Your task to perform on an android device: toggle notifications settings in the gmail app Image 0: 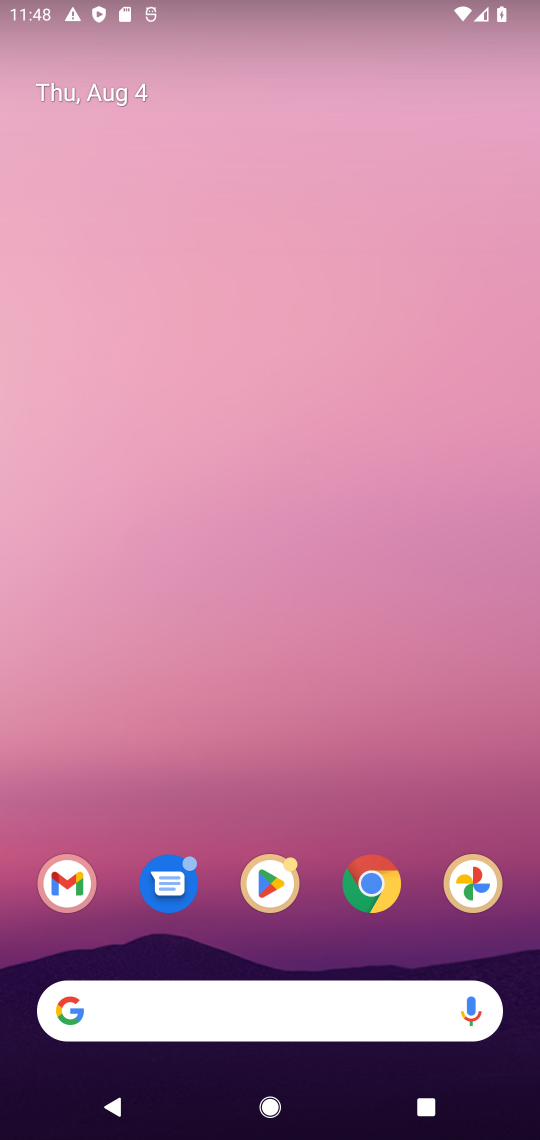
Step 0: drag from (300, 947) to (345, 31)
Your task to perform on an android device: toggle notifications settings in the gmail app Image 1: 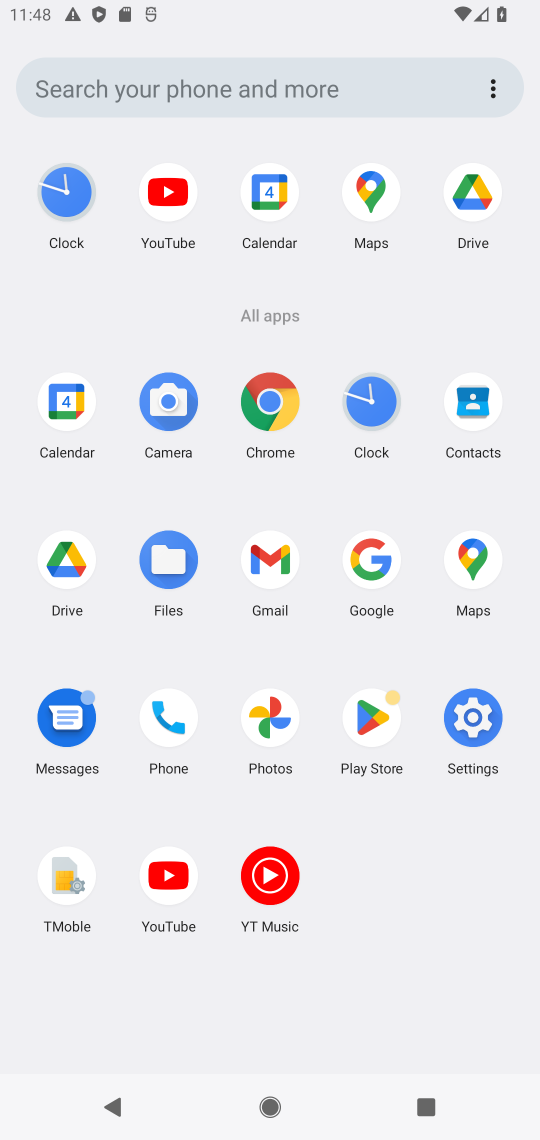
Step 1: click (272, 563)
Your task to perform on an android device: toggle notifications settings in the gmail app Image 2: 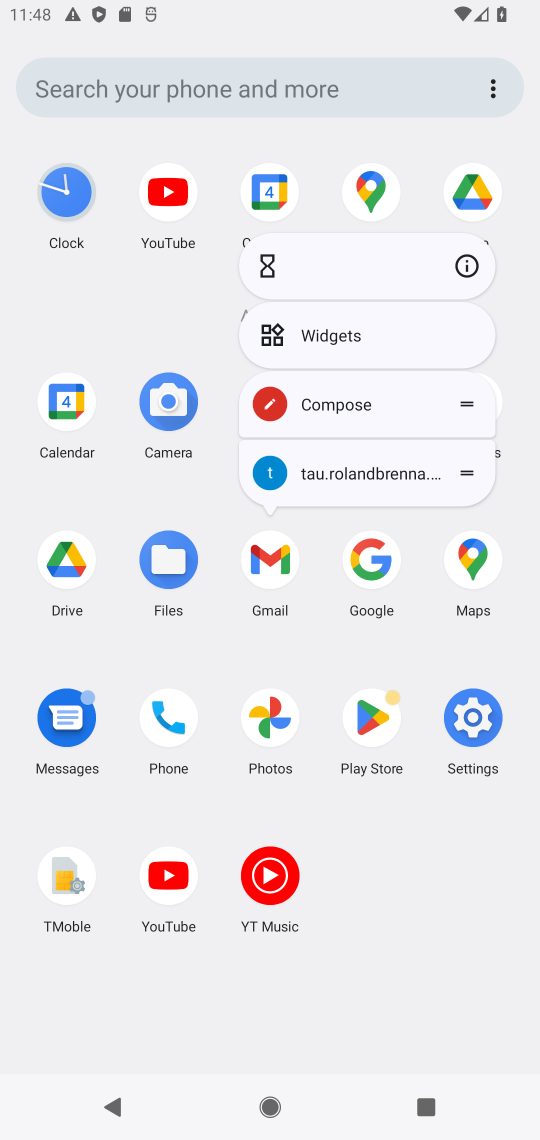
Step 2: click (462, 252)
Your task to perform on an android device: toggle notifications settings in the gmail app Image 3: 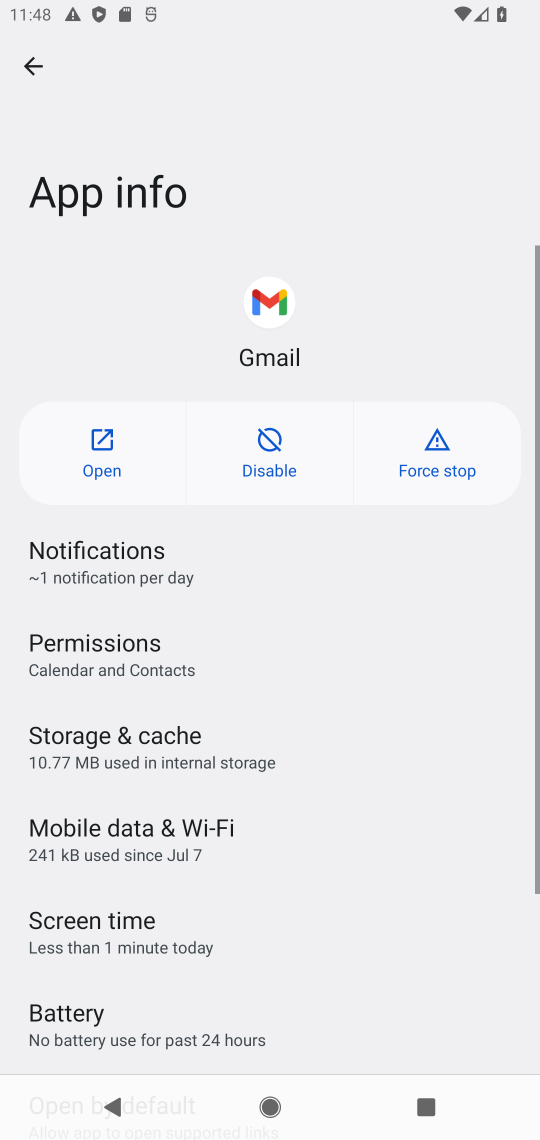
Step 3: click (95, 472)
Your task to perform on an android device: toggle notifications settings in the gmail app Image 4: 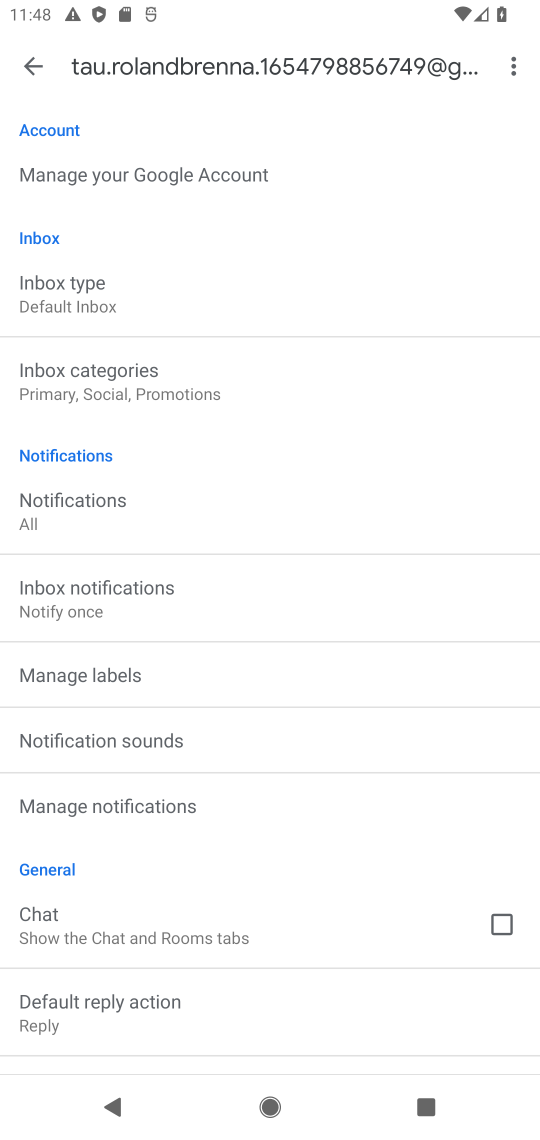
Step 4: drag from (231, 824) to (296, 388)
Your task to perform on an android device: toggle notifications settings in the gmail app Image 5: 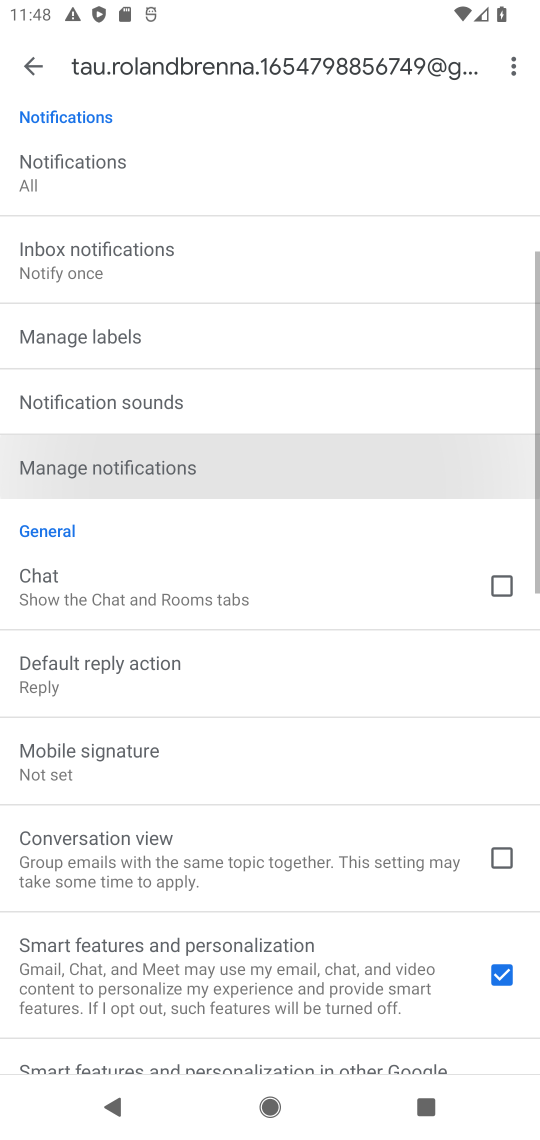
Step 5: drag from (302, 350) to (276, 1062)
Your task to perform on an android device: toggle notifications settings in the gmail app Image 6: 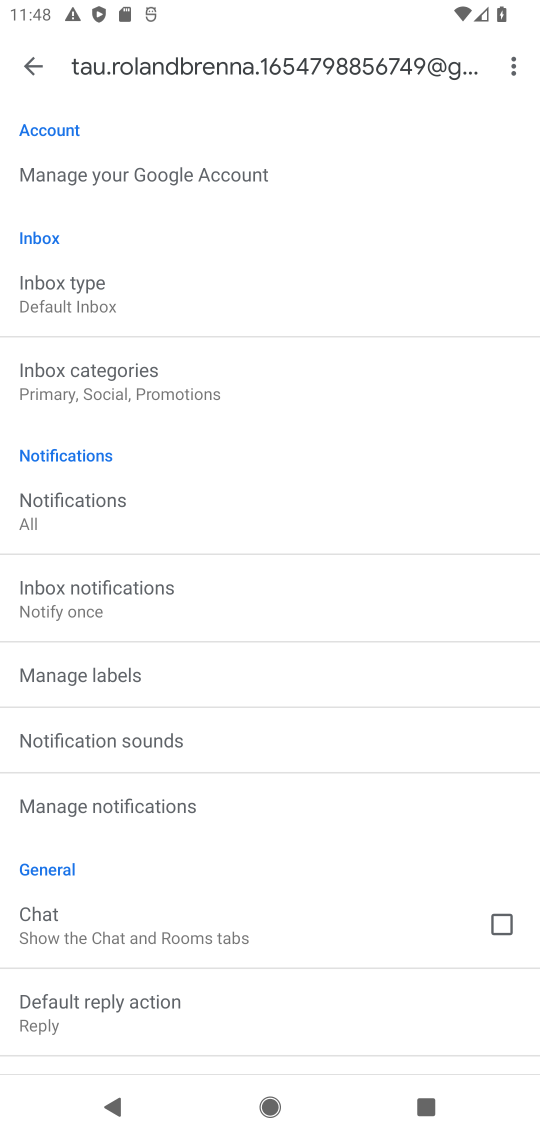
Step 6: drag from (163, 391) to (284, 911)
Your task to perform on an android device: toggle notifications settings in the gmail app Image 7: 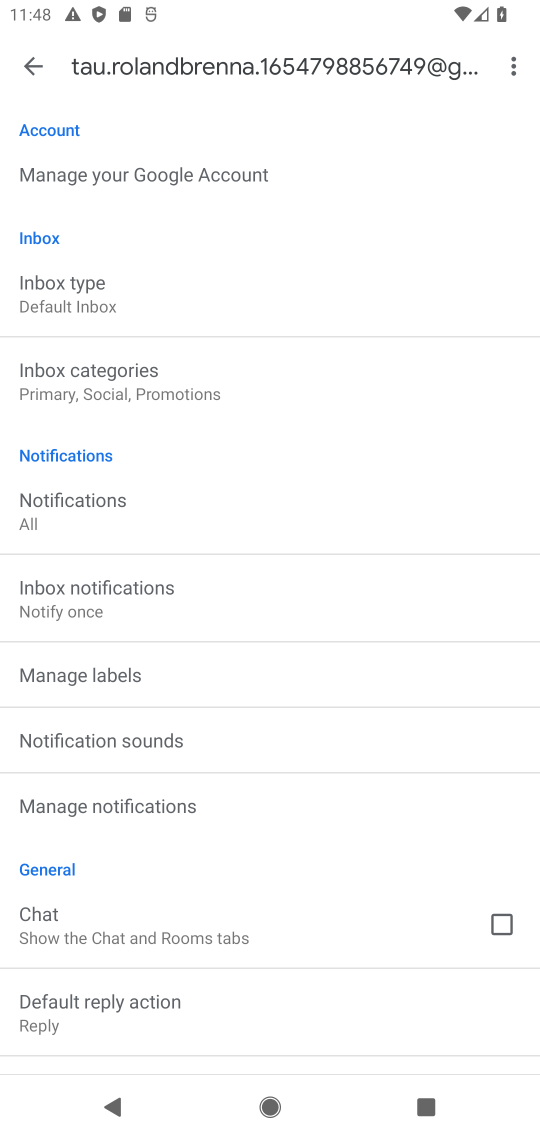
Step 7: click (157, 802)
Your task to perform on an android device: toggle notifications settings in the gmail app Image 8: 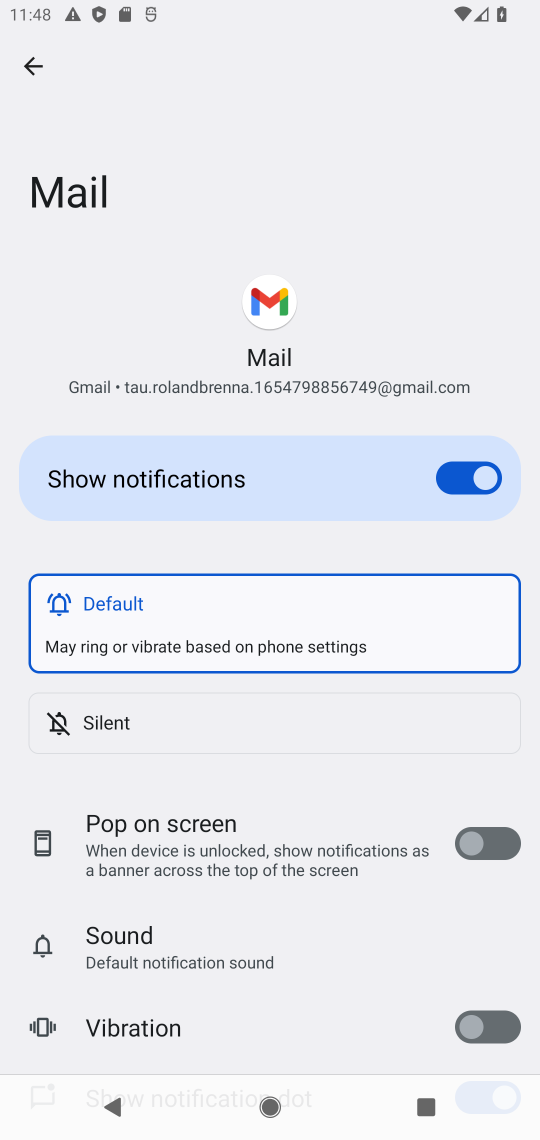
Step 8: drag from (235, 972) to (263, 419)
Your task to perform on an android device: toggle notifications settings in the gmail app Image 9: 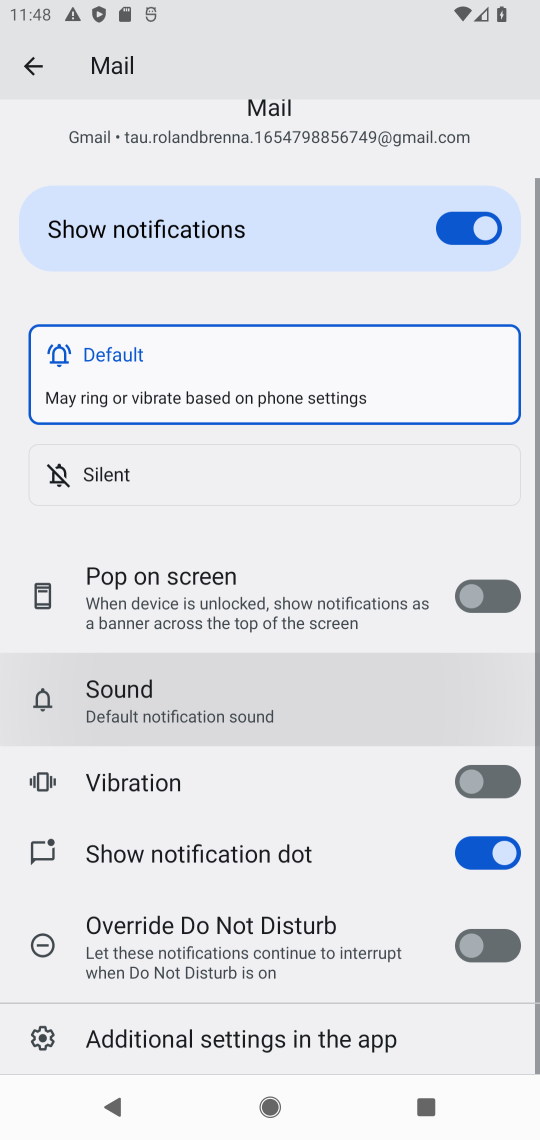
Step 9: drag from (271, 365) to (316, 1113)
Your task to perform on an android device: toggle notifications settings in the gmail app Image 10: 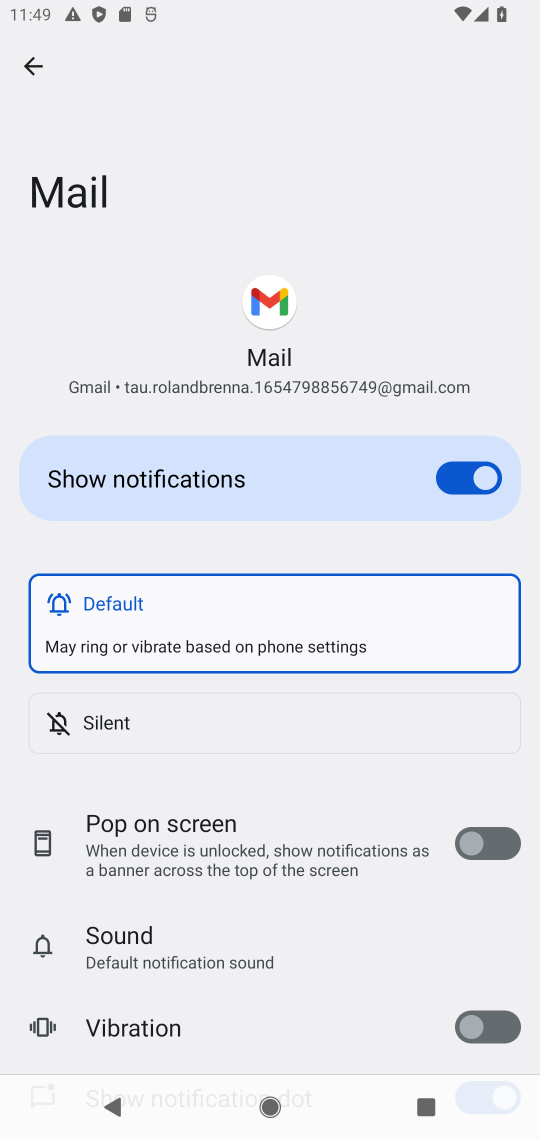
Step 10: click (473, 493)
Your task to perform on an android device: toggle notifications settings in the gmail app Image 11: 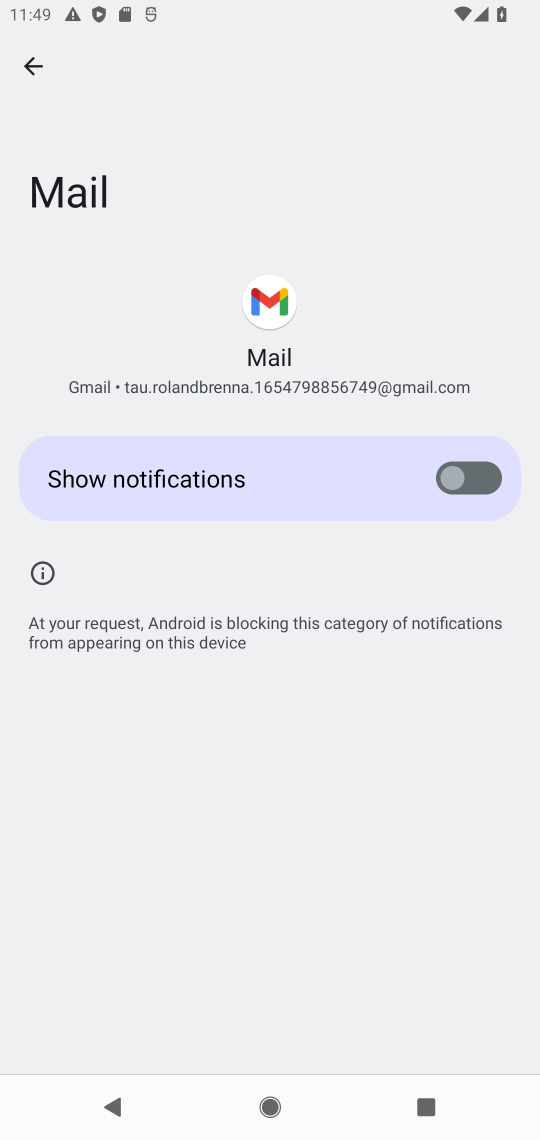
Step 11: task complete